Your task to perform on an android device: turn on priority inbox in the gmail app Image 0: 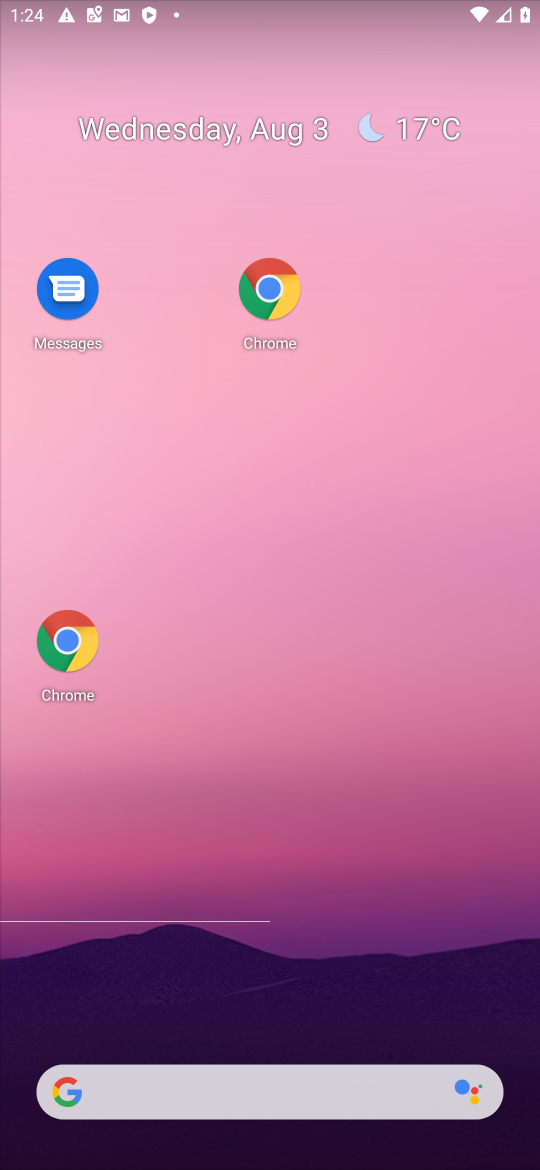
Step 0: drag from (348, 950) to (260, 236)
Your task to perform on an android device: turn on priority inbox in the gmail app Image 1: 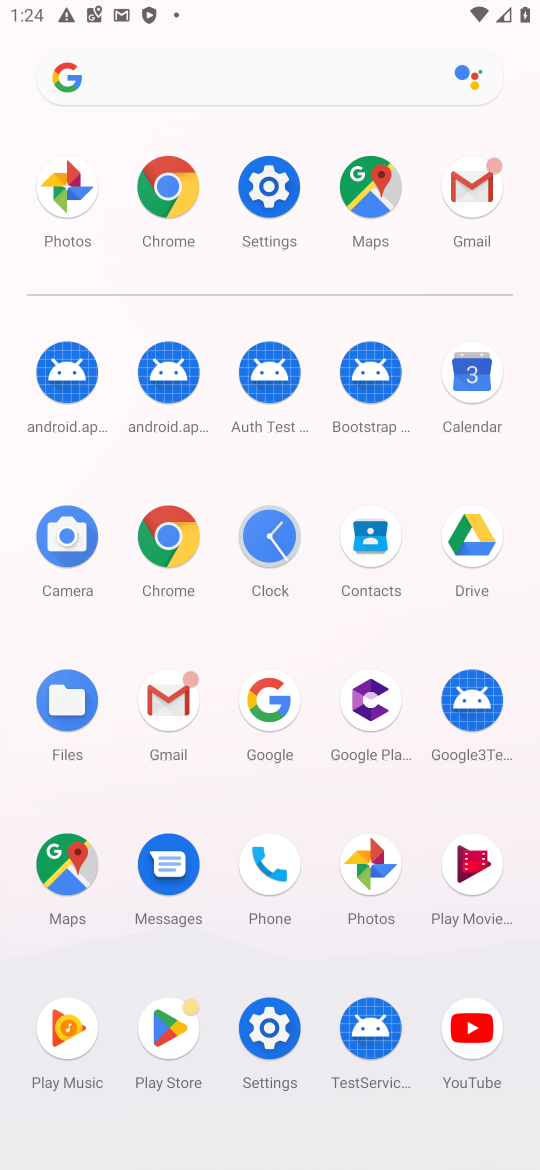
Step 1: click (459, 236)
Your task to perform on an android device: turn on priority inbox in the gmail app Image 2: 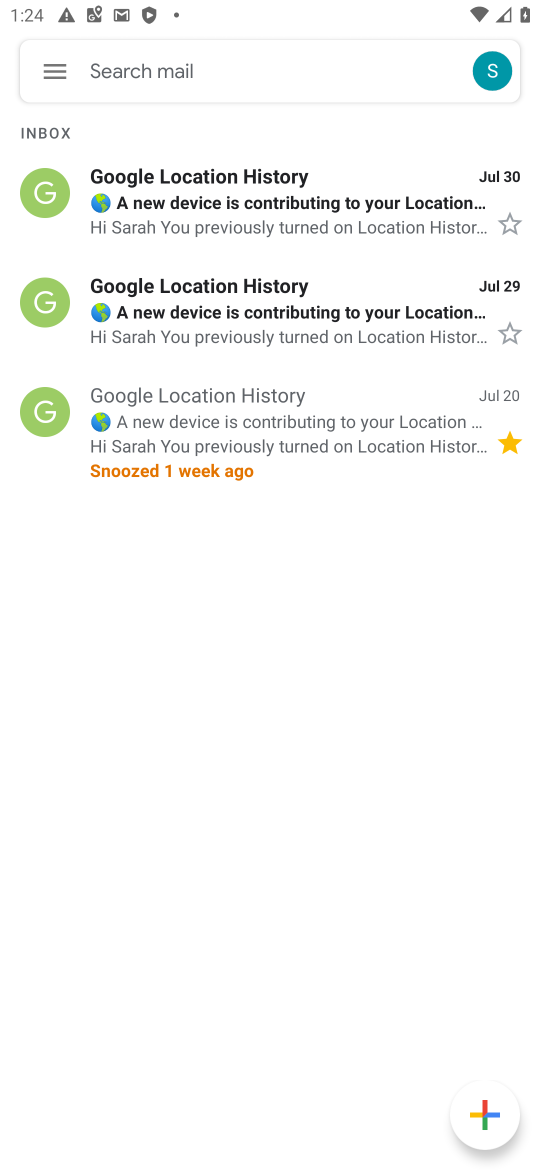
Step 2: click (48, 61)
Your task to perform on an android device: turn on priority inbox in the gmail app Image 3: 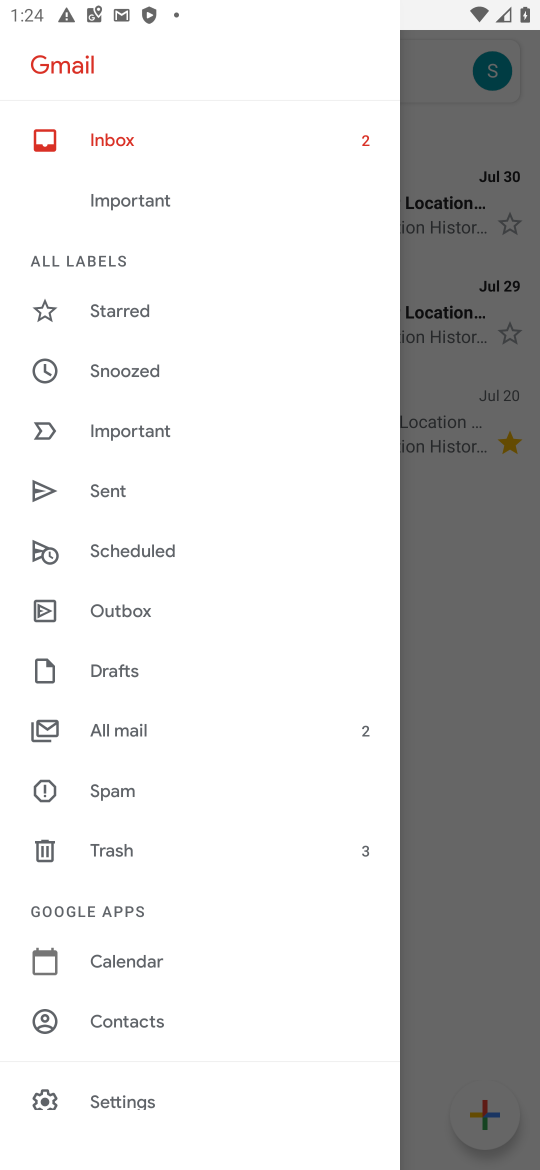
Step 3: click (184, 1086)
Your task to perform on an android device: turn on priority inbox in the gmail app Image 4: 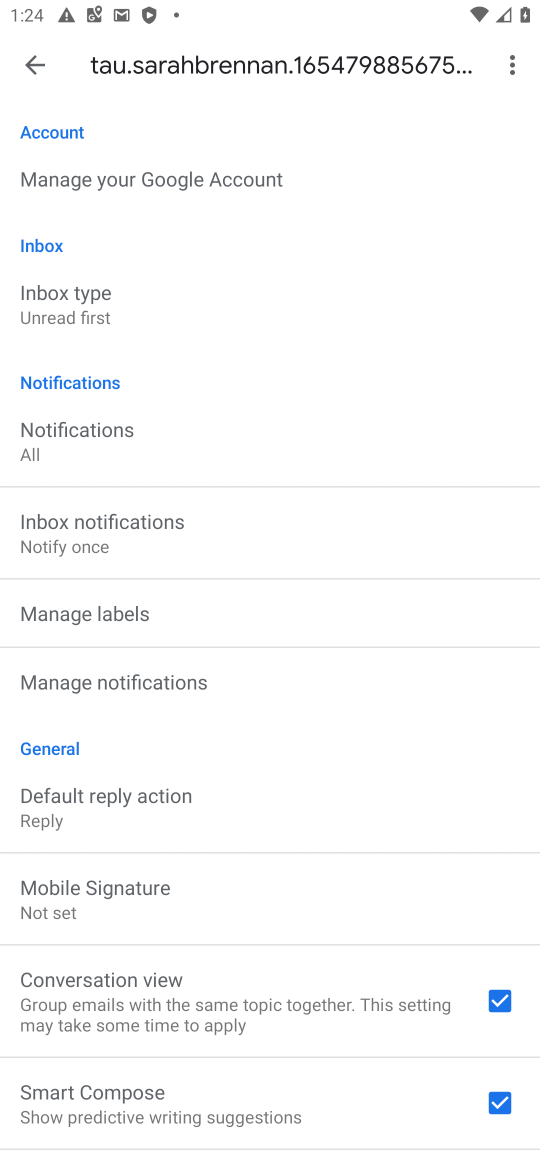
Step 4: click (134, 297)
Your task to perform on an android device: turn on priority inbox in the gmail app Image 5: 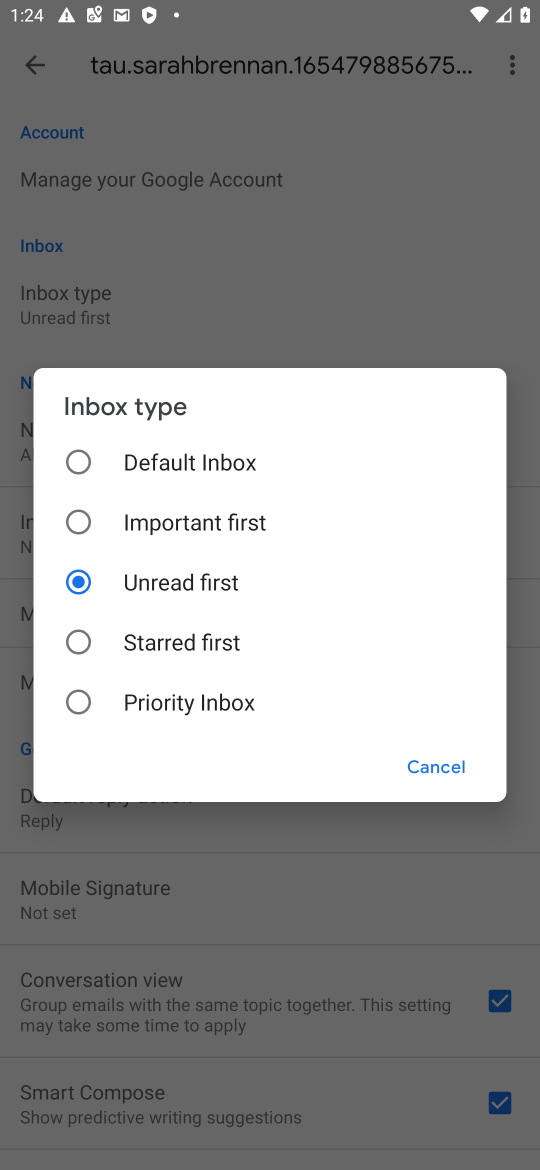
Step 5: click (228, 696)
Your task to perform on an android device: turn on priority inbox in the gmail app Image 6: 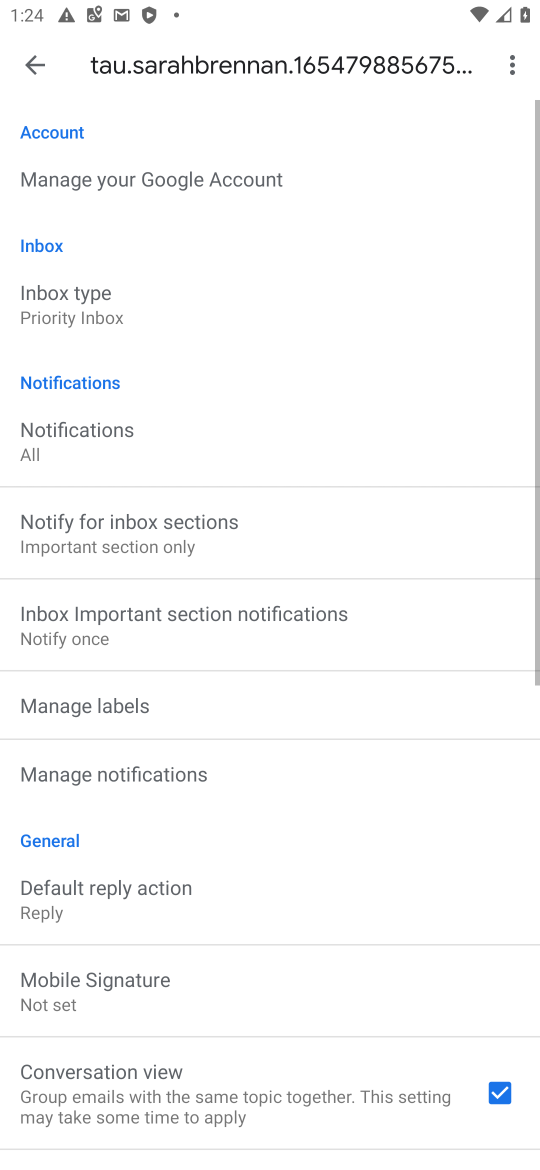
Step 6: task complete